Your task to perform on an android device: open app "Calculator" Image 0: 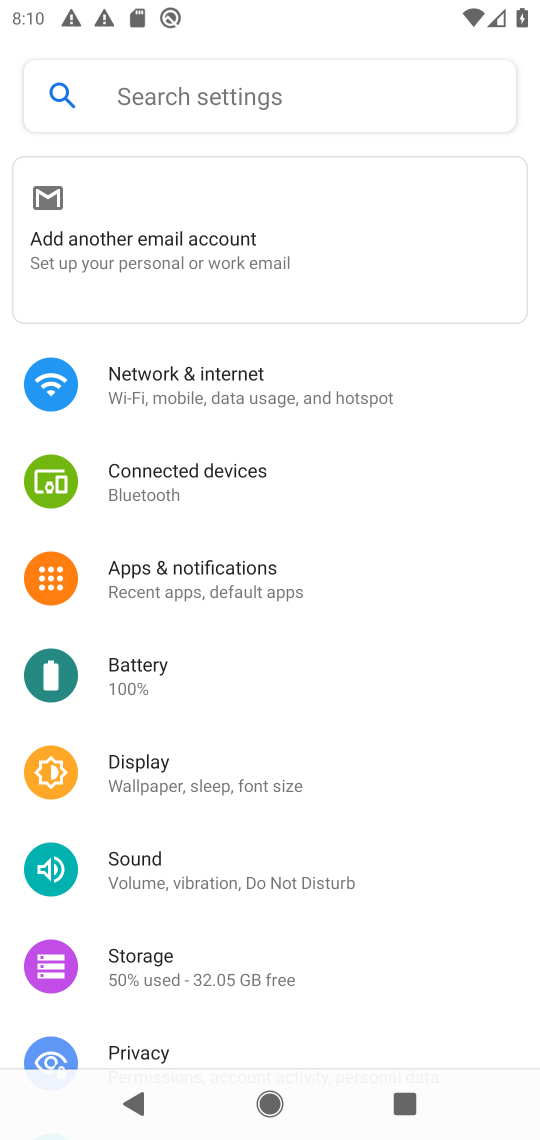
Step 0: press home button
Your task to perform on an android device: open app "Calculator" Image 1: 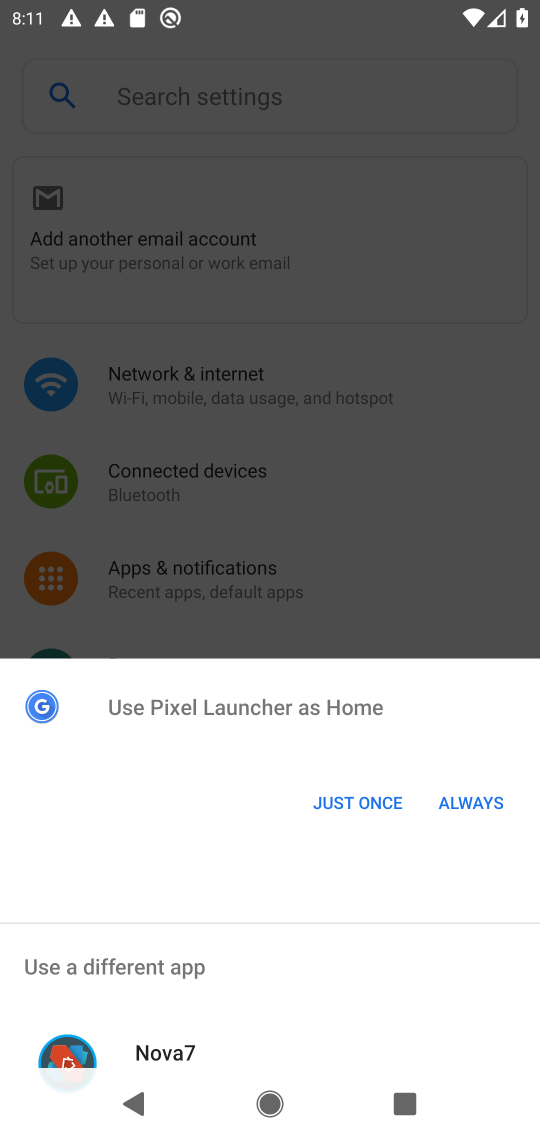
Step 1: click (352, 811)
Your task to perform on an android device: open app "Calculator" Image 2: 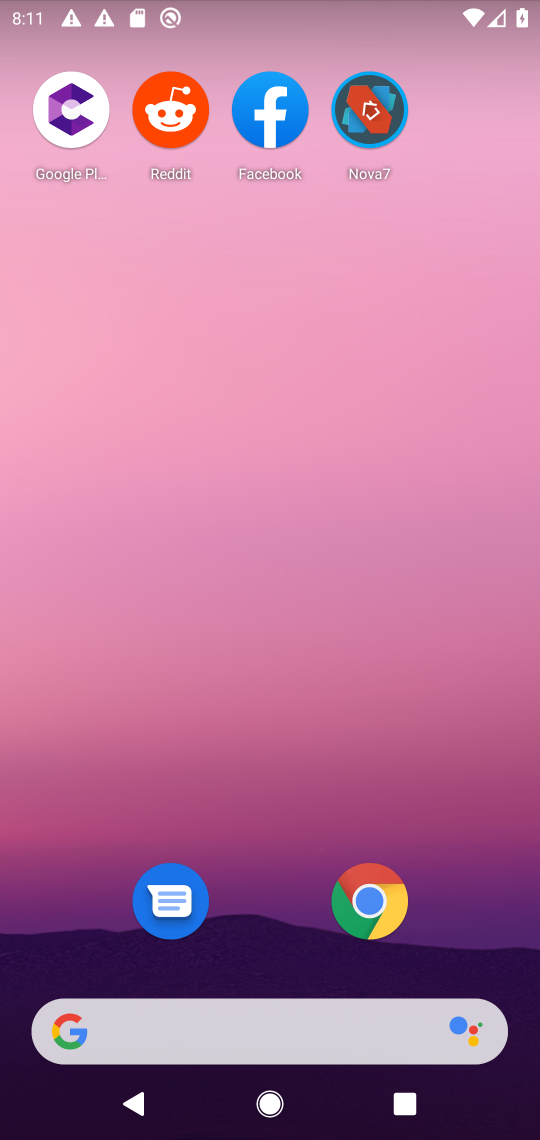
Step 2: drag from (161, 875) to (46, 168)
Your task to perform on an android device: open app "Calculator" Image 3: 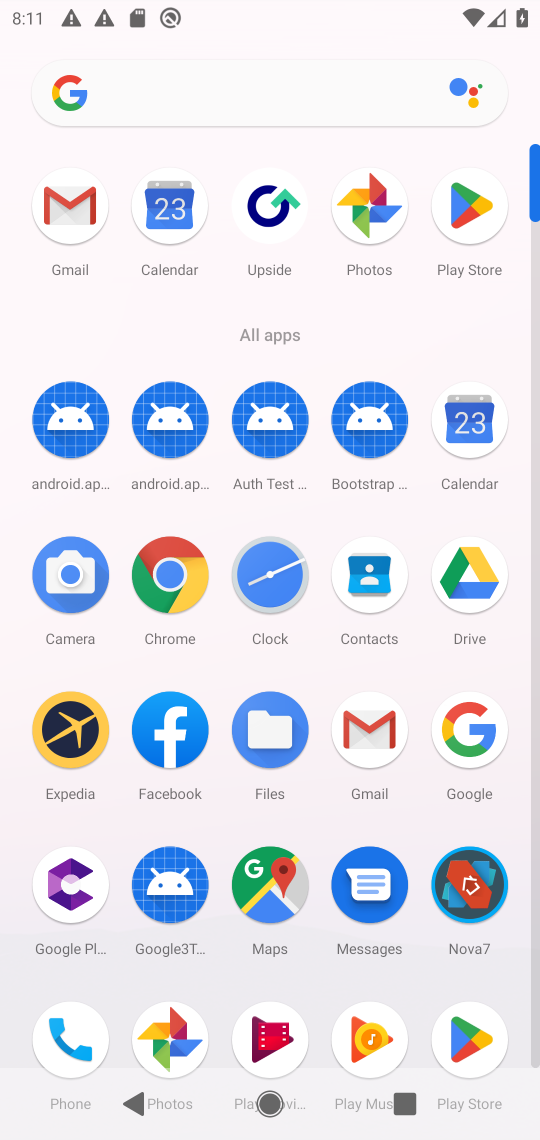
Step 3: click (456, 216)
Your task to perform on an android device: open app "Calculator" Image 4: 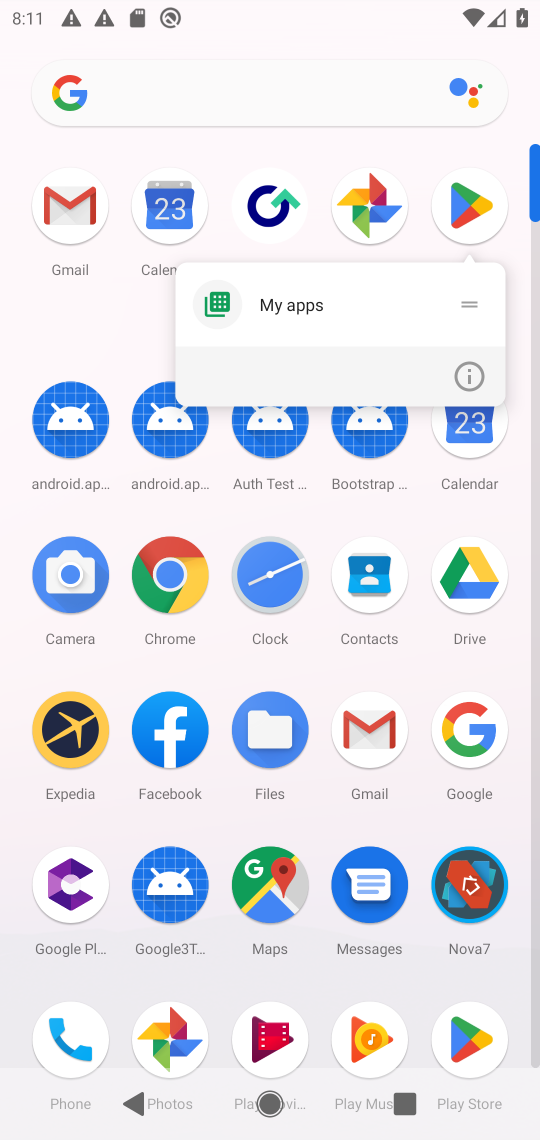
Step 4: click (455, 216)
Your task to perform on an android device: open app "Calculator" Image 5: 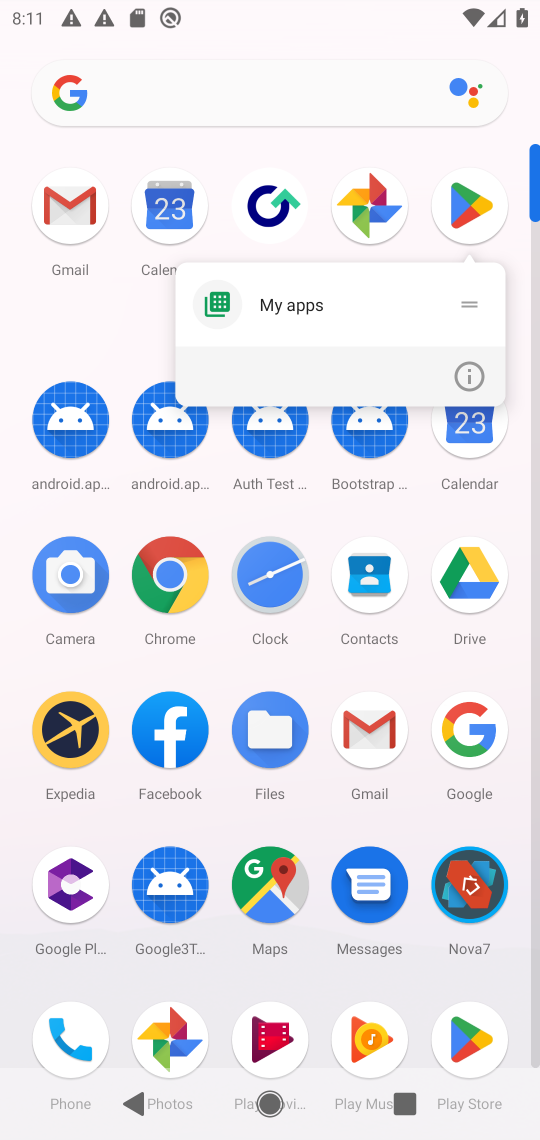
Step 5: click (455, 215)
Your task to perform on an android device: open app "Calculator" Image 6: 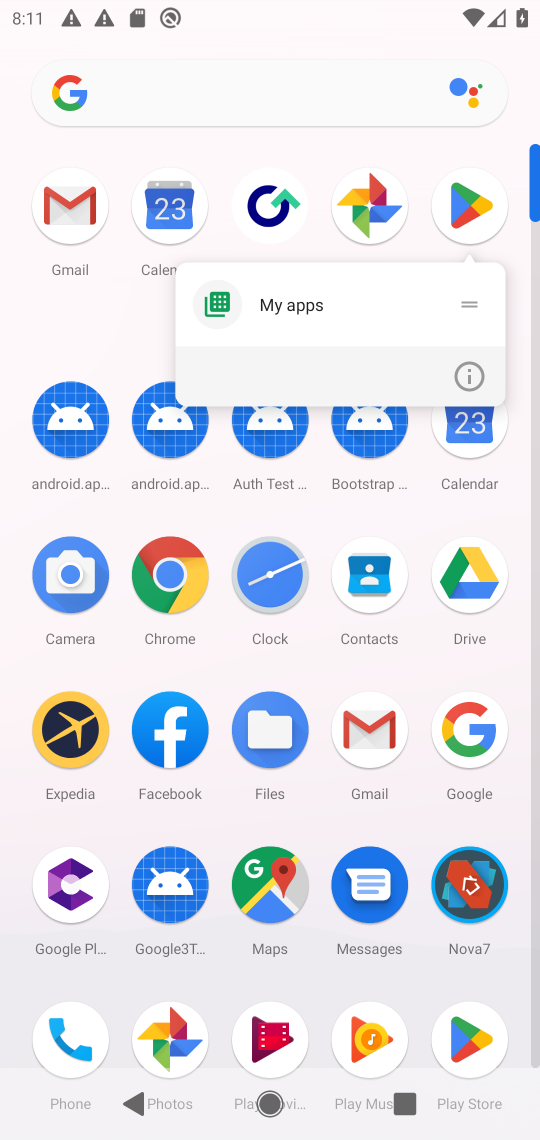
Step 6: click (455, 215)
Your task to perform on an android device: open app "Calculator" Image 7: 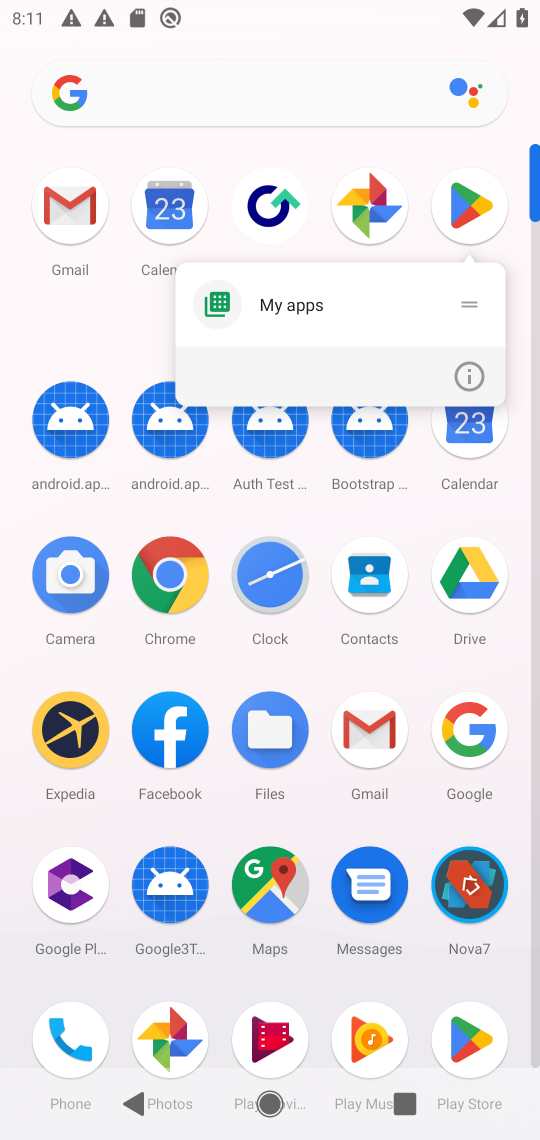
Step 7: click (467, 193)
Your task to perform on an android device: open app "Calculator" Image 8: 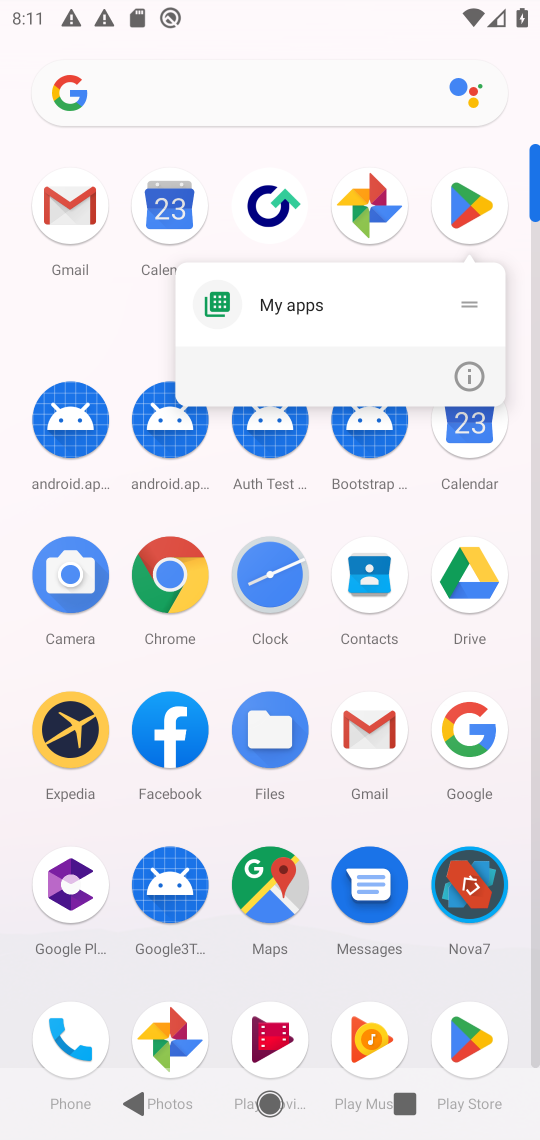
Step 8: click (466, 192)
Your task to perform on an android device: open app "Calculator" Image 9: 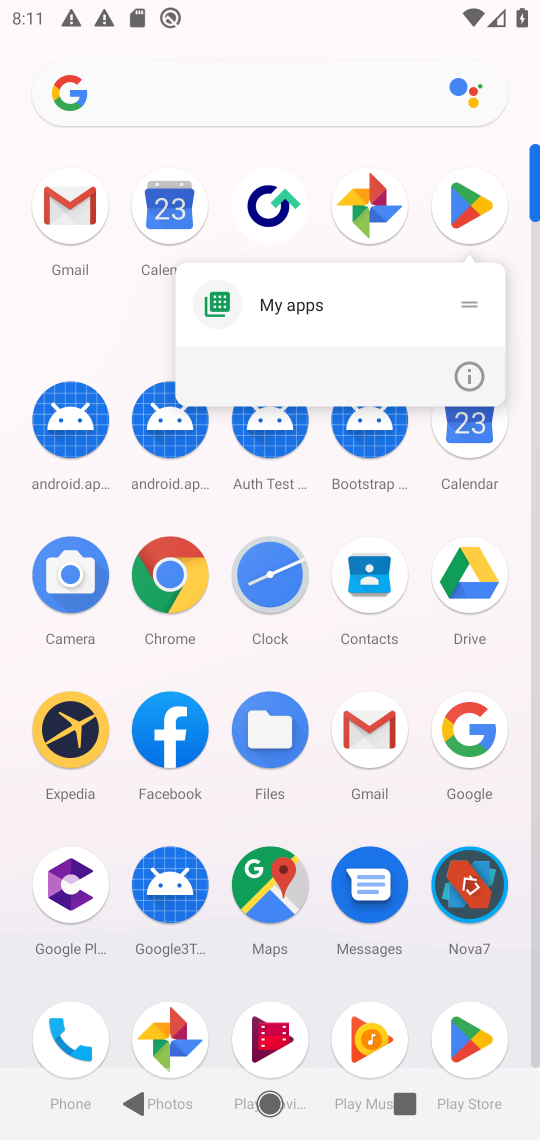
Step 9: click (459, 199)
Your task to perform on an android device: open app "Calculator" Image 10: 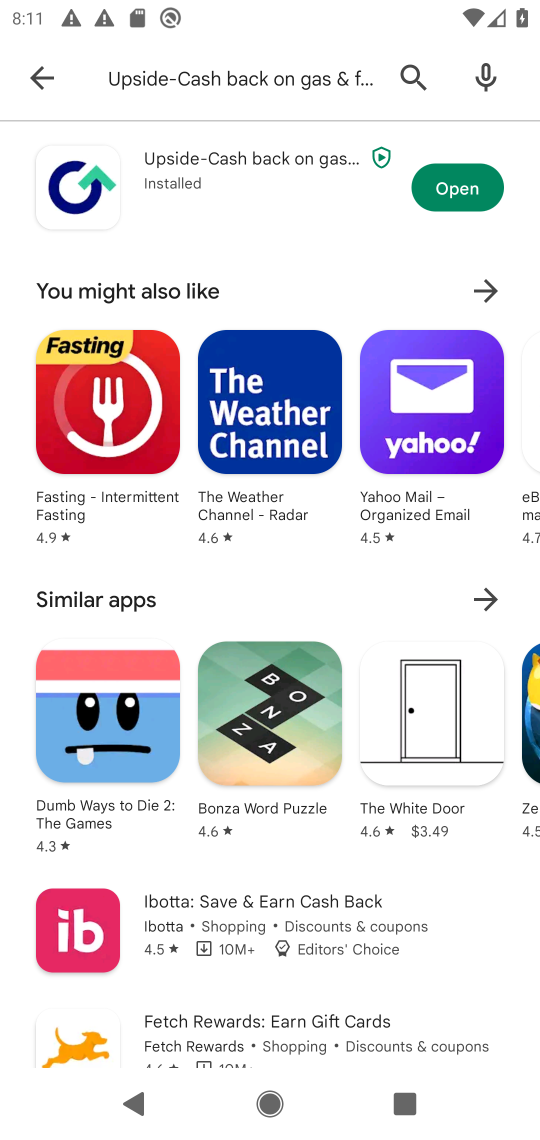
Step 10: press back button
Your task to perform on an android device: open app "Calculator" Image 11: 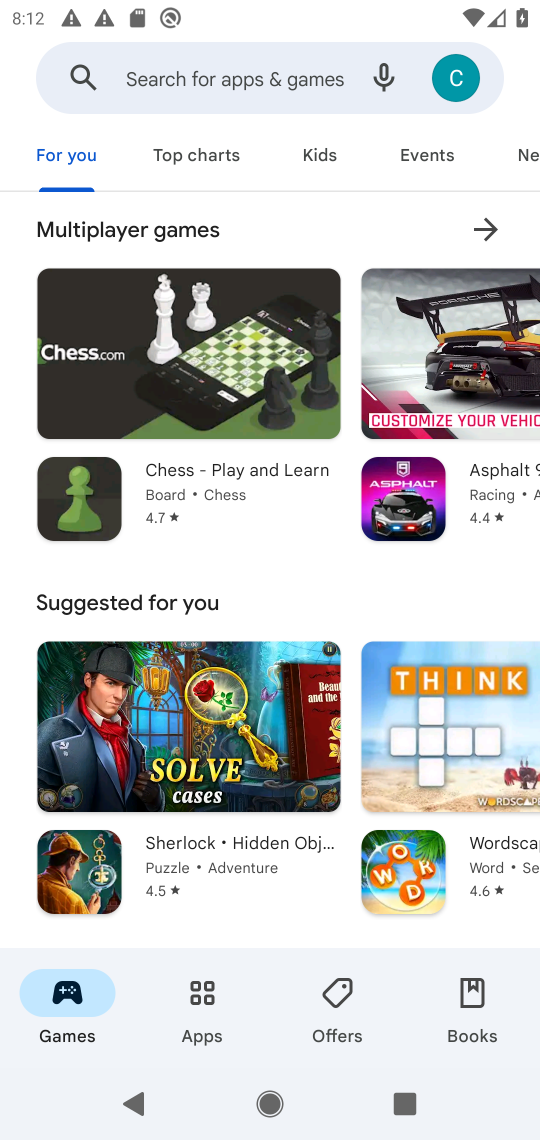
Step 11: click (169, 83)
Your task to perform on an android device: open app "Calculator" Image 12: 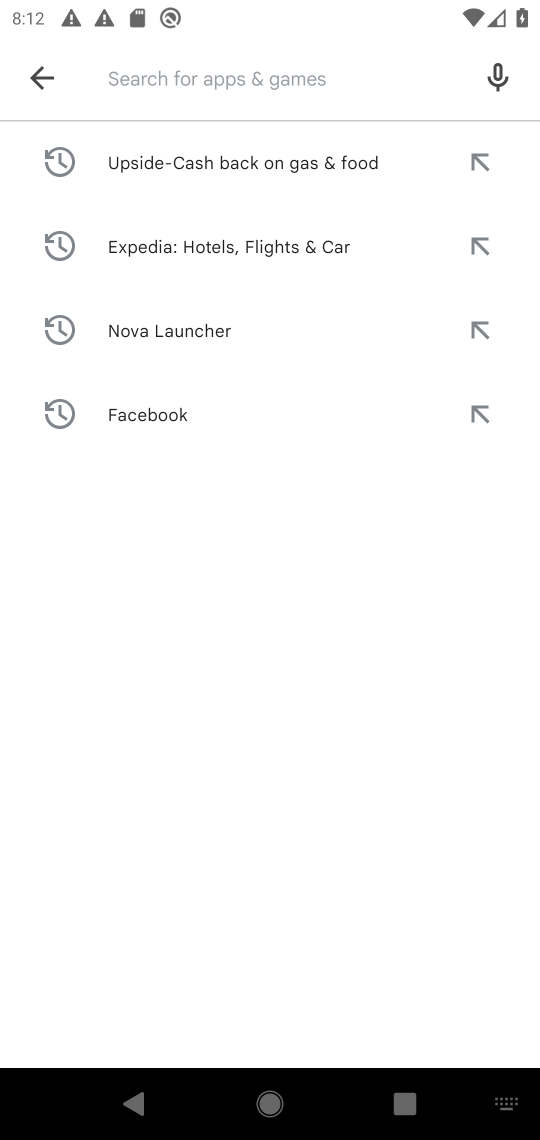
Step 12: type "Calculator"
Your task to perform on an android device: open app "Calculator" Image 13: 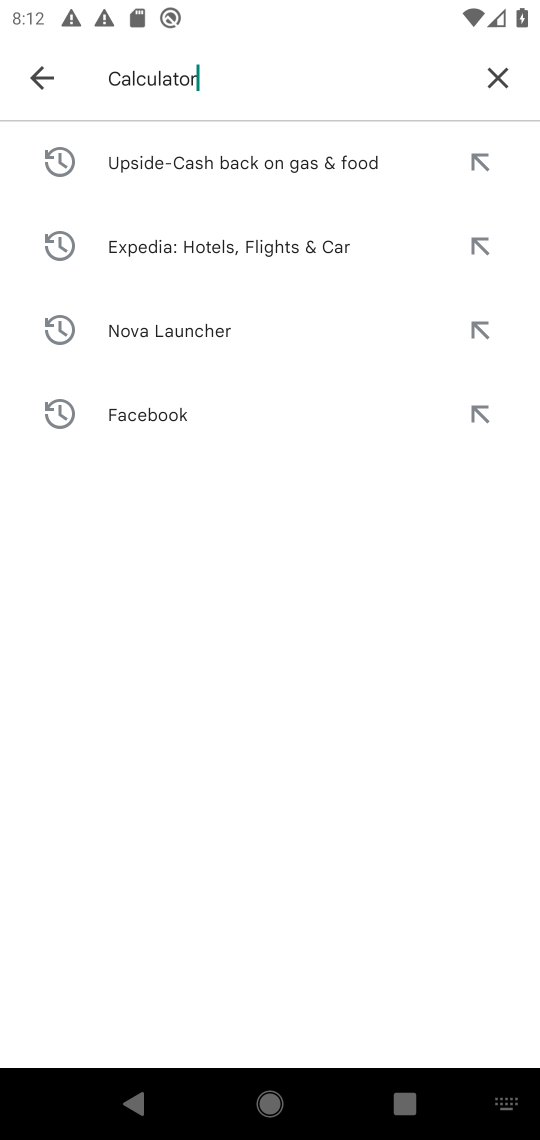
Step 13: press enter
Your task to perform on an android device: open app "Calculator" Image 14: 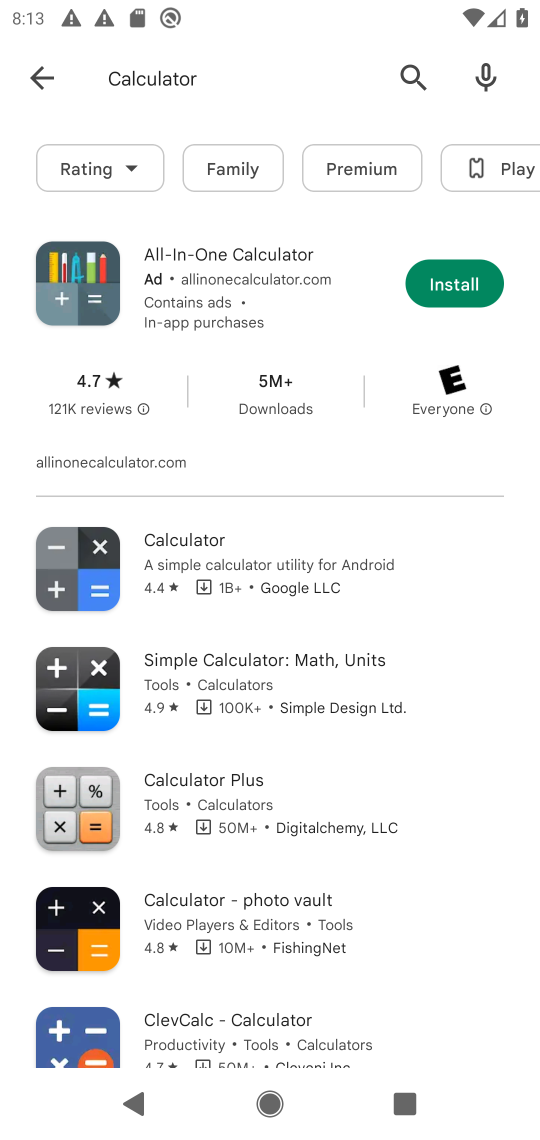
Step 14: click (287, 586)
Your task to perform on an android device: open app "Calculator" Image 15: 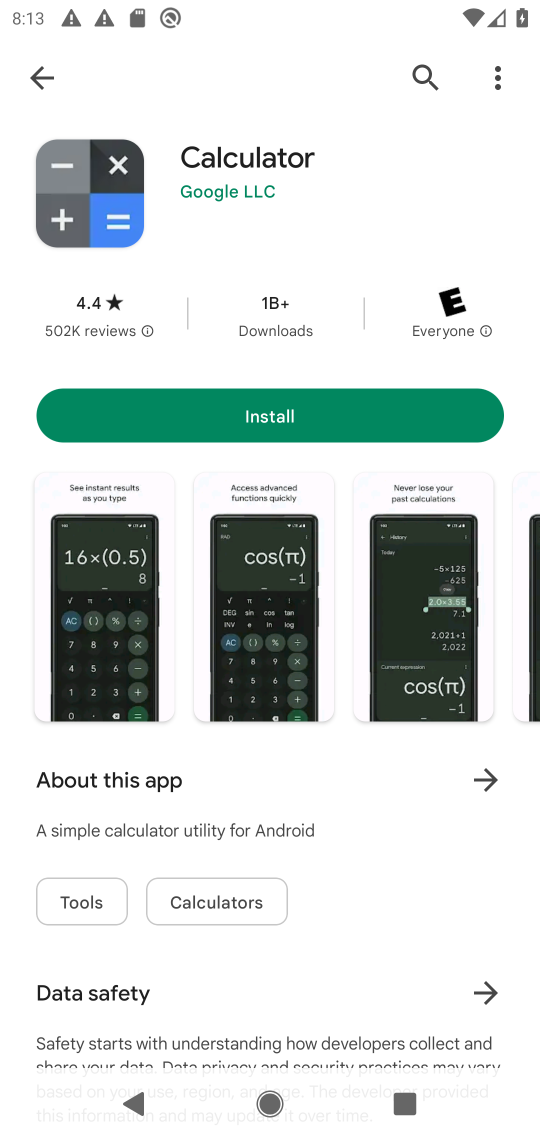
Step 15: task complete